Your task to perform on an android device: choose inbox layout in the gmail app Image 0: 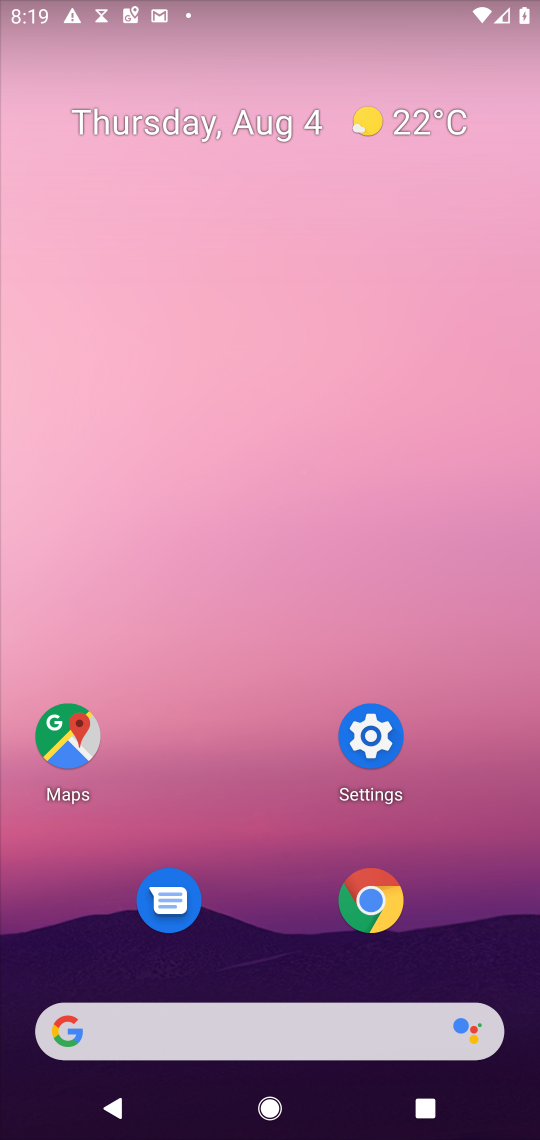
Step 0: drag from (239, 1028) to (500, 89)
Your task to perform on an android device: choose inbox layout in the gmail app Image 1: 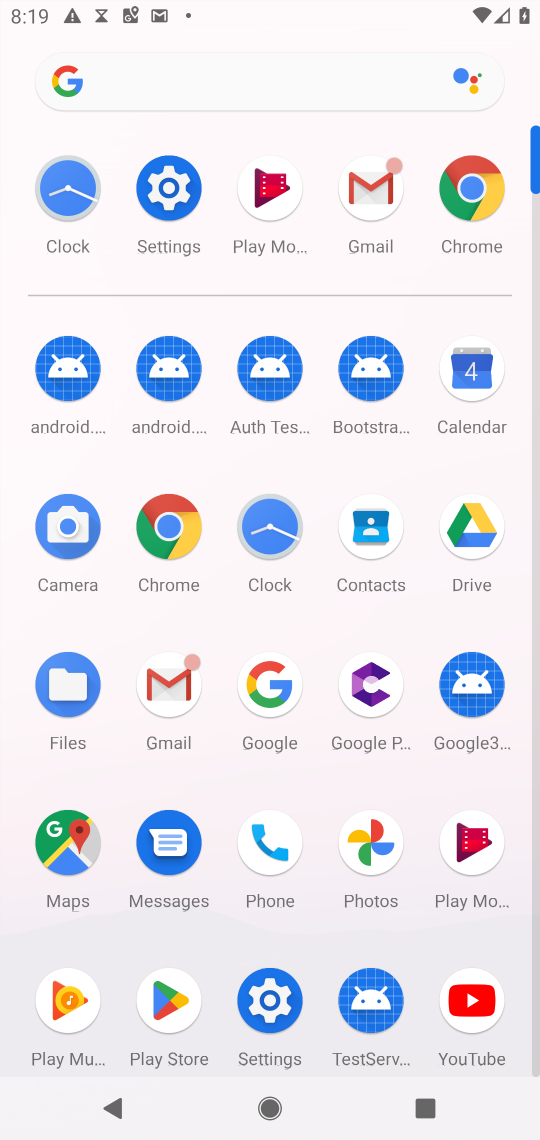
Step 1: click (365, 182)
Your task to perform on an android device: choose inbox layout in the gmail app Image 2: 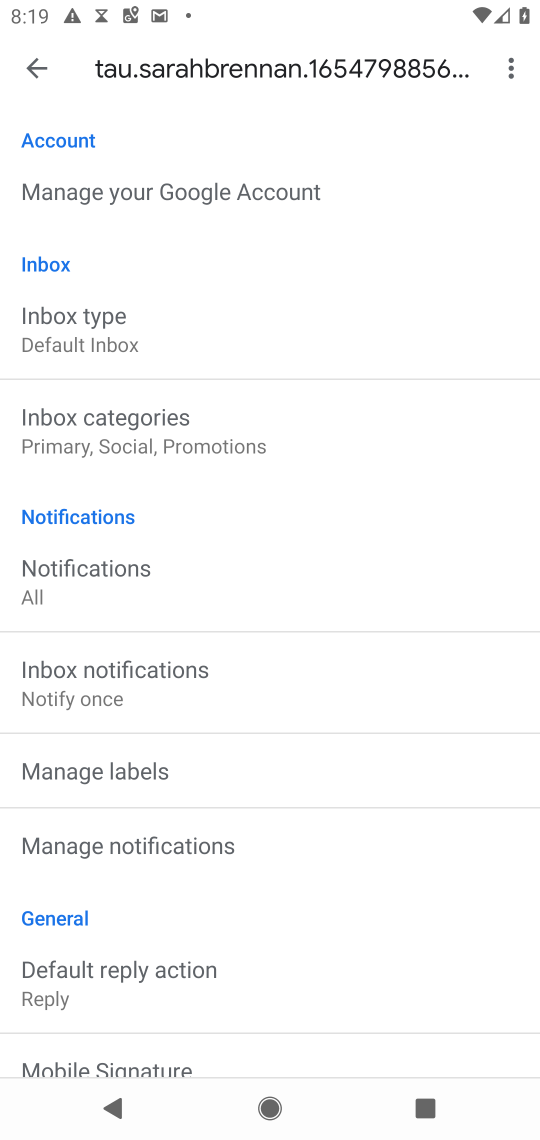
Step 2: click (88, 329)
Your task to perform on an android device: choose inbox layout in the gmail app Image 3: 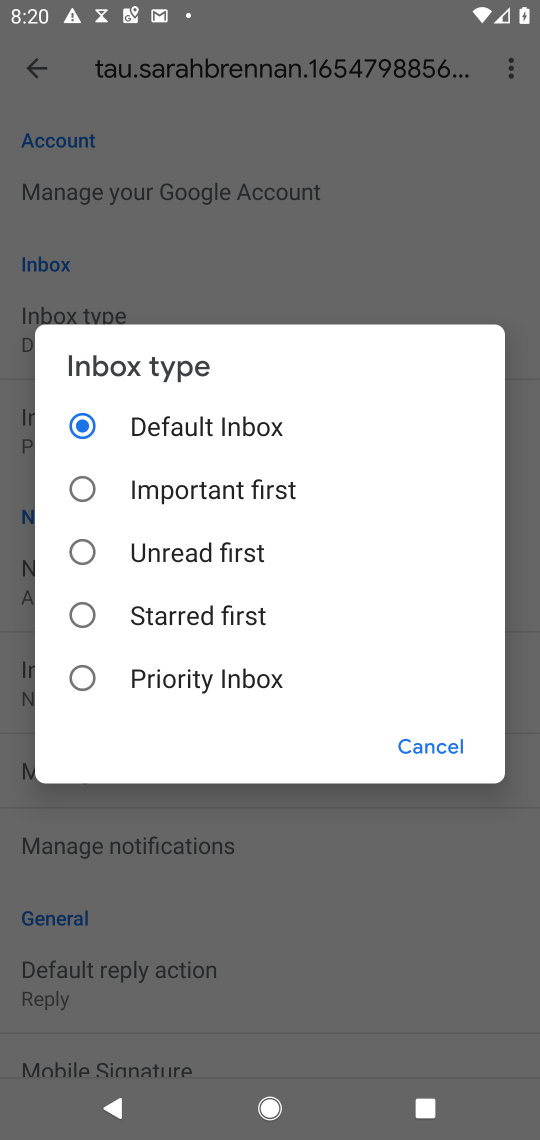
Step 3: click (89, 547)
Your task to perform on an android device: choose inbox layout in the gmail app Image 4: 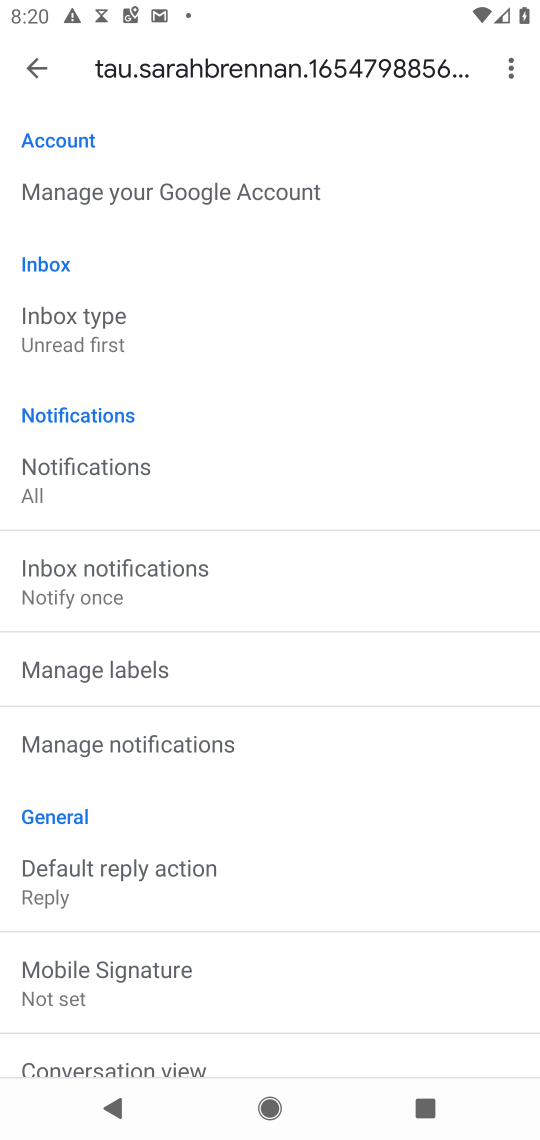
Step 4: task complete